Your task to perform on an android device: star an email in the gmail app Image 0: 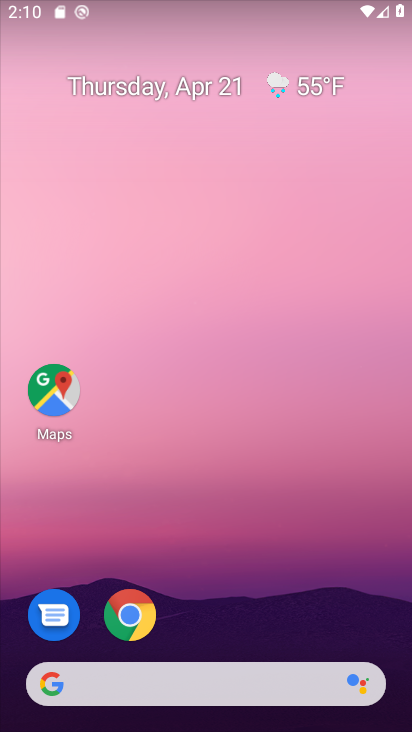
Step 0: drag from (203, 619) to (297, 70)
Your task to perform on an android device: star an email in the gmail app Image 1: 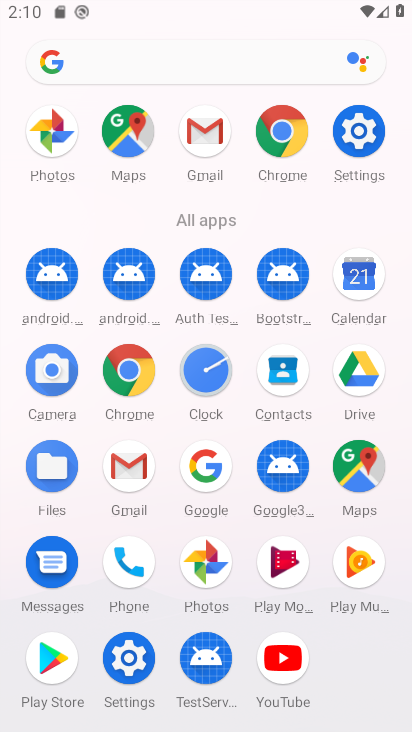
Step 1: click (129, 465)
Your task to perform on an android device: star an email in the gmail app Image 2: 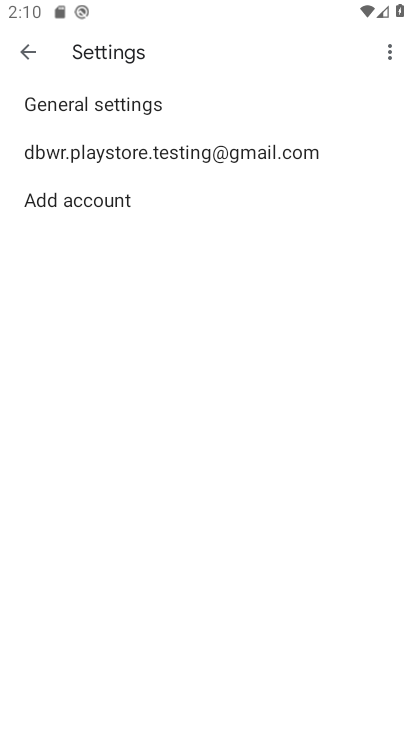
Step 2: click (30, 58)
Your task to perform on an android device: star an email in the gmail app Image 3: 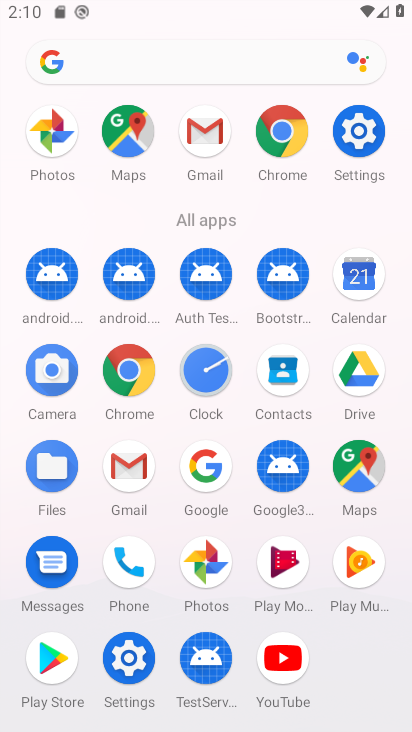
Step 3: click (147, 473)
Your task to perform on an android device: star an email in the gmail app Image 4: 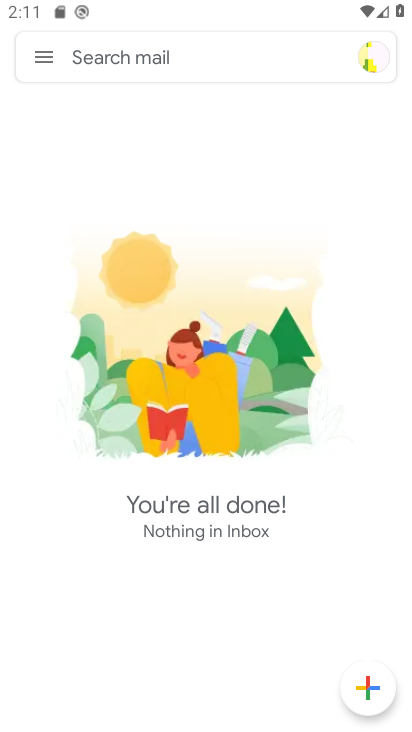
Step 4: task complete